Your task to perform on an android device: turn on improve location accuracy Image 0: 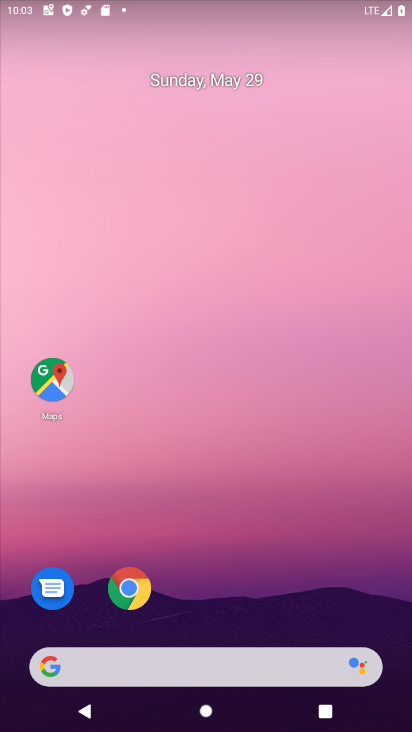
Step 0: drag from (213, 594) to (316, 80)
Your task to perform on an android device: turn on improve location accuracy Image 1: 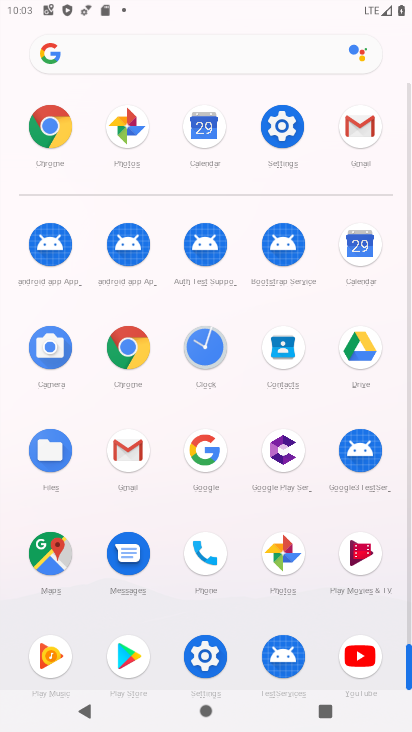
Step 1: click (204, 654)
Your task to perform on an android device: turn on improve location accuracy Image 2: 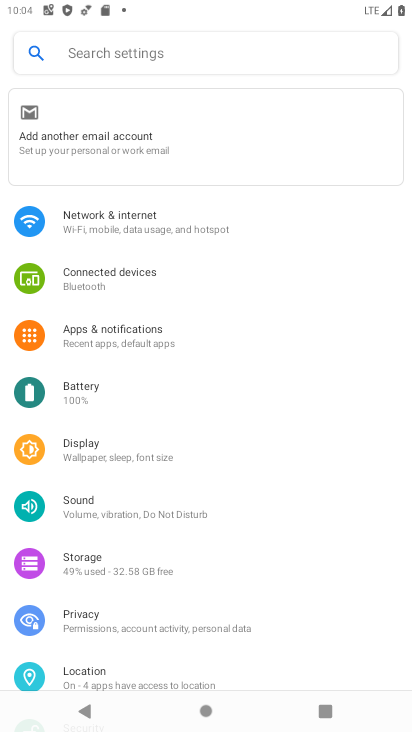
Step 2: click (131, 672)
Your task to perform on an android device: turn on improve location accuracy Image 3: 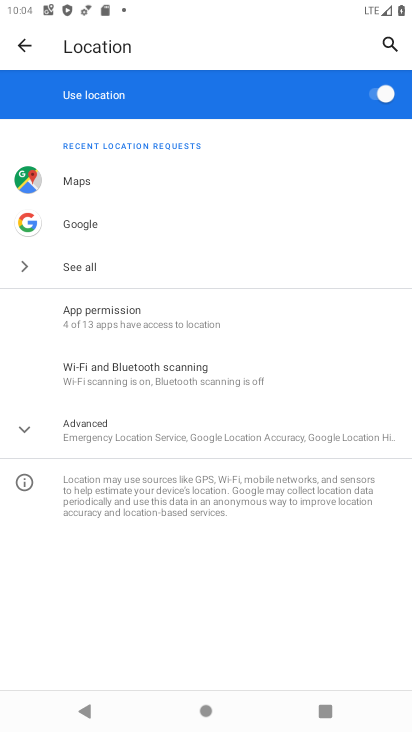
Step 3: click (109, 426)
Your task to perform on an android device: turn on improve location accuracy Image 4: 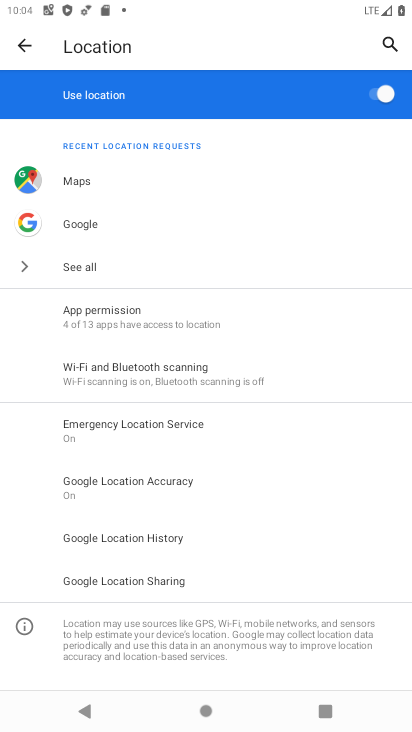
Step 4: click (146, 496)
Your task to perform on an android device: turn on improve location accuracy Image 5: 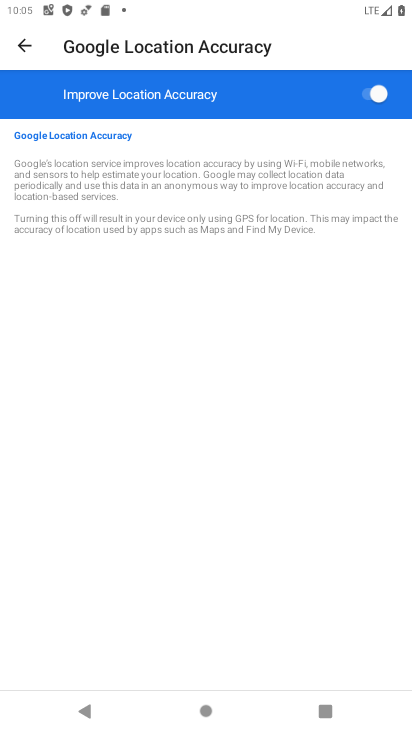
Step 5: press home button
Your task to perform on an android device: turn on improve location accuracy Image 6: 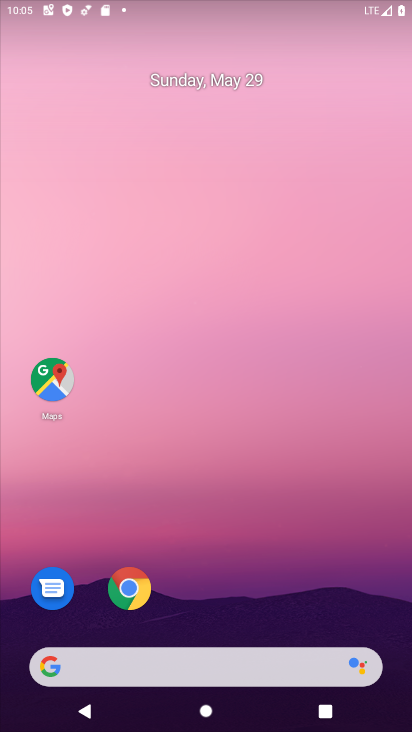
Step 6: drag from (278, 631) to (305, 91)
Your task to perform on an android device: turn on improve location accuracy Image 7: 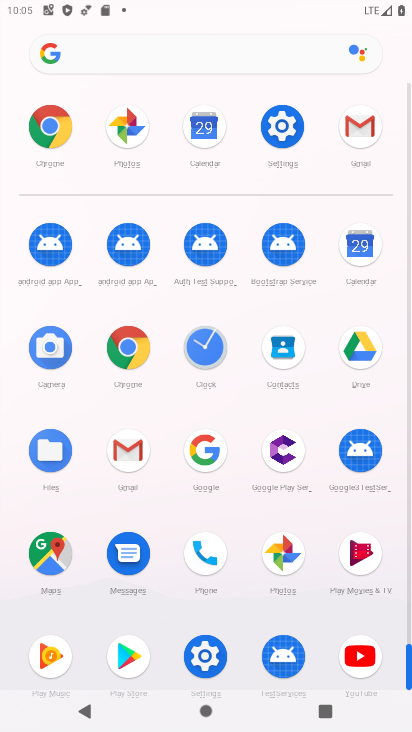
Step 7: click (189, 661)
Your task to perform on an android device: turn on improve location accuracy Image 8: 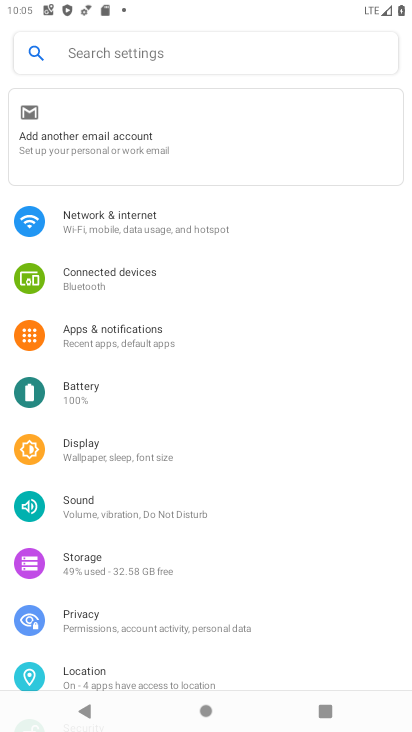
Step 8: click (191, 673)
Your task to perform on an android device: turn on improve location accuracy Image 9: 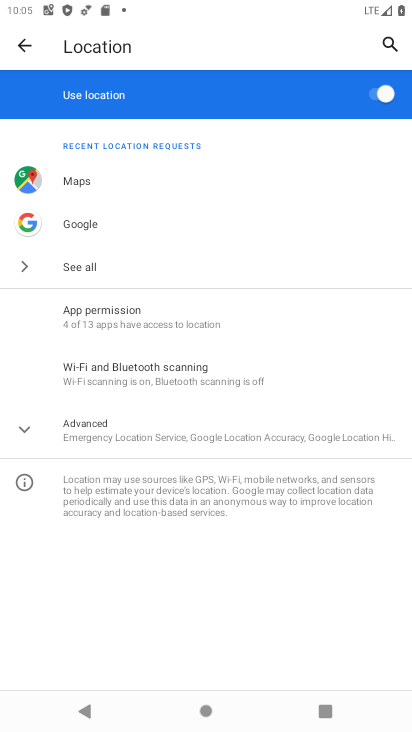
Step 9: click (133, 435)
Your task to perform on an android device: turn on improve location accuracy Image 10: 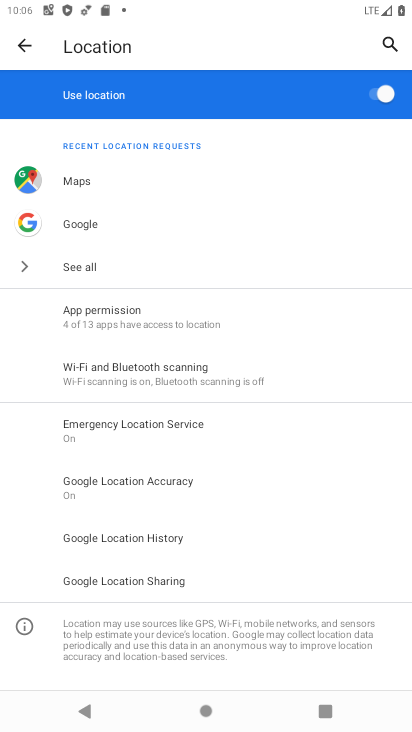
Step 10: click (160, 491)
Your task to perform on an android device: turn on improve location accuracy Image 11: 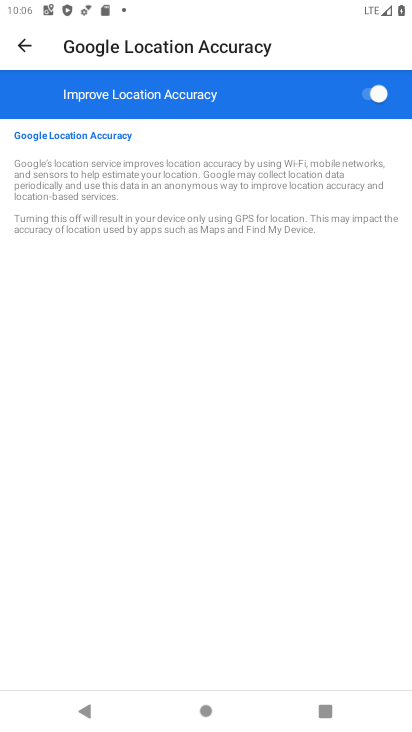
Step 11: task complete